Your task to perform on an android device: Show me popular videos on Youtube Image 0: 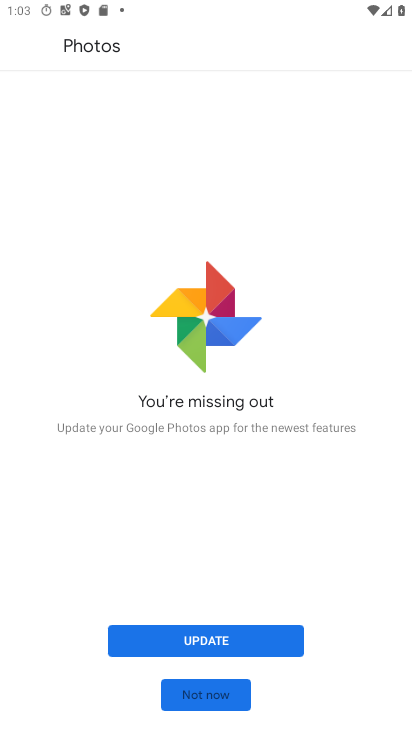
Step 0: press home button
Your task to perform on an android device: Show me popular videos on Youtube Image 1: 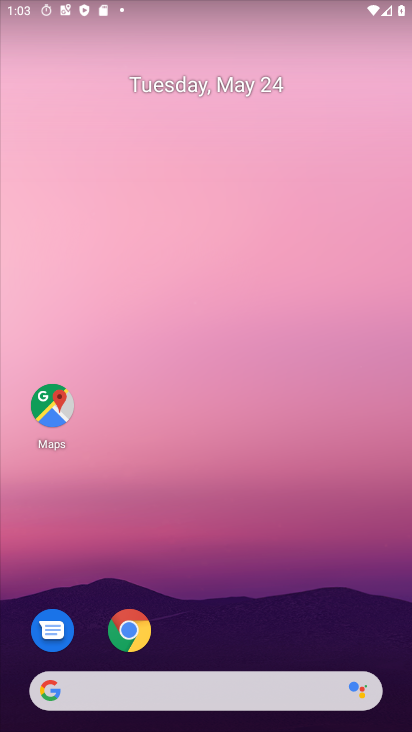
Step 1: drag from (220, 665) to (227, 0)
Your task to perform on an android device: Show me popular videos on Youtube Image 2: 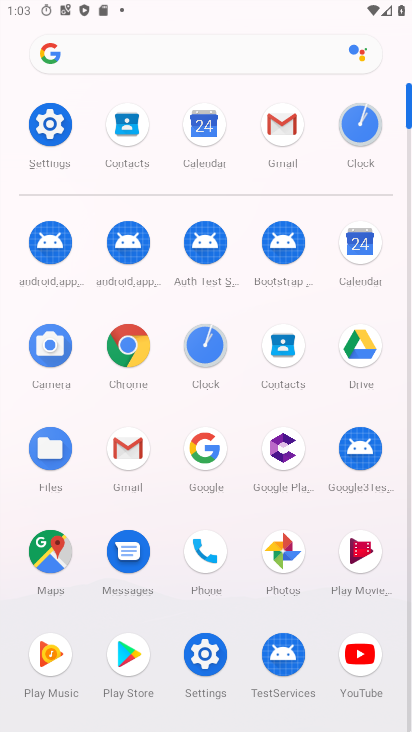
Step 2: click (352, 662)
Your task to perform on an android device: Show me popular videos on Youtube Image 3: 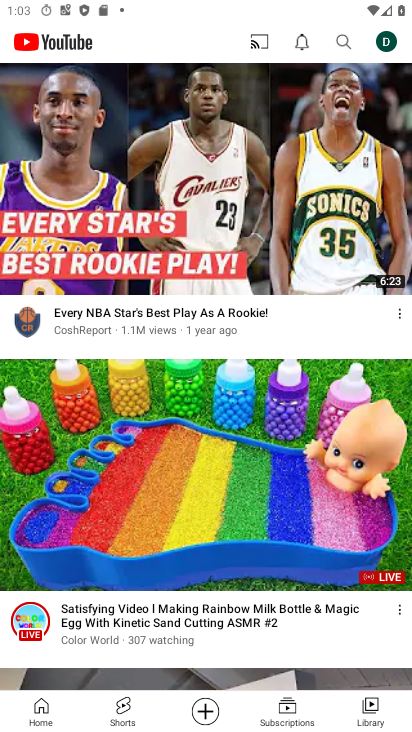
Step 3: task complete